Your task to perform on an android device: make emails show in primary in the gmail app Image 0: 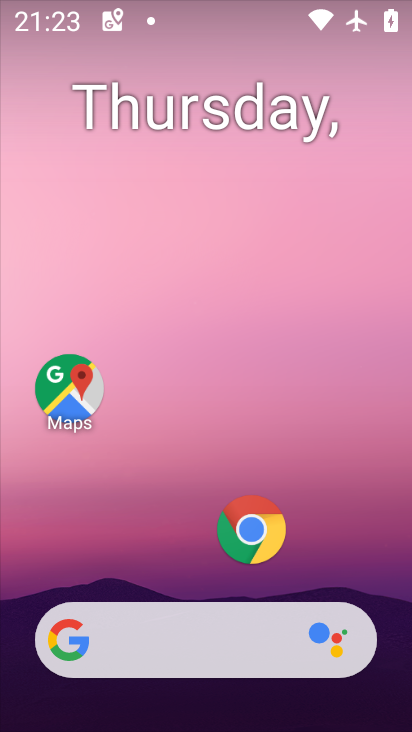
Step 0: press home button
Your task to perform on an android device: make emails show in primary in the gmail app Image 1: 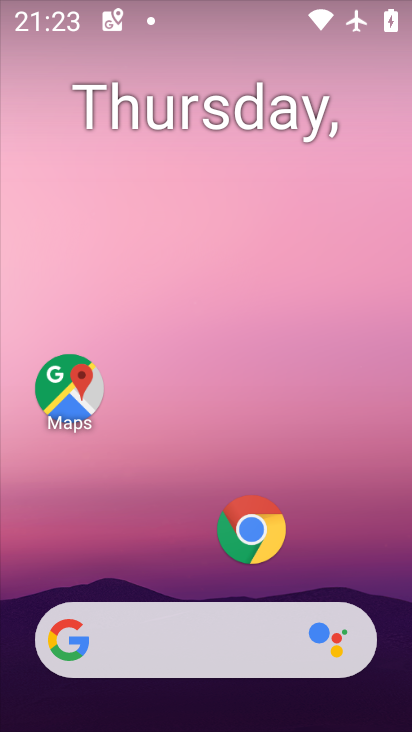
Step 1: press home button
Your task to perform on an android device: make emails show in primary in the gmail app Image 2: 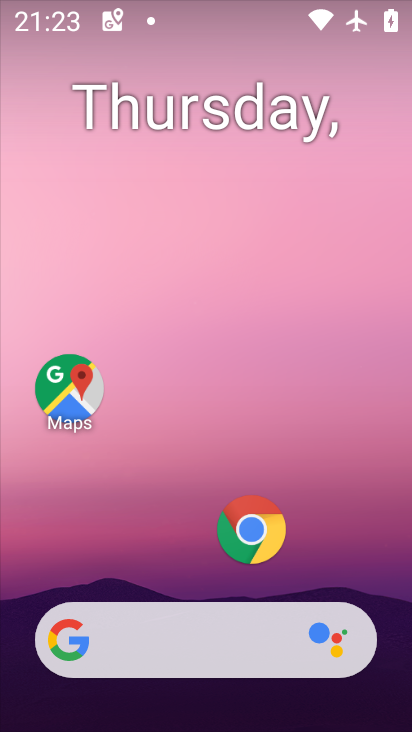
Step 2: drag from (200, 583) to (188, 100)
Your task to perform on an android device: make emails show in primary in the gmail app Image 3: 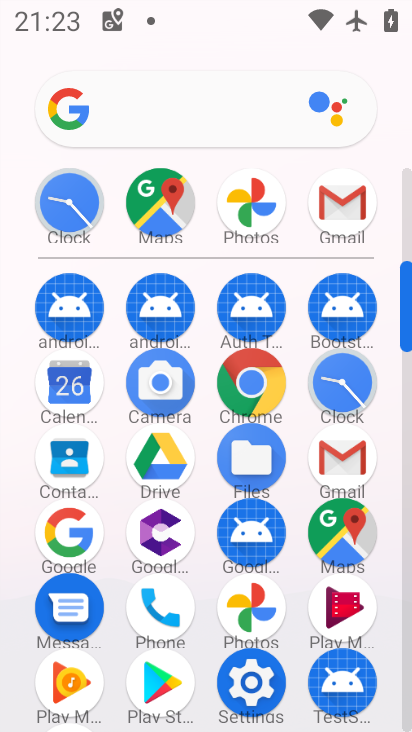
Step 3: click (341, 190)
Your task to perform on an android device: make emails show in primary in the gmail app Image 4: 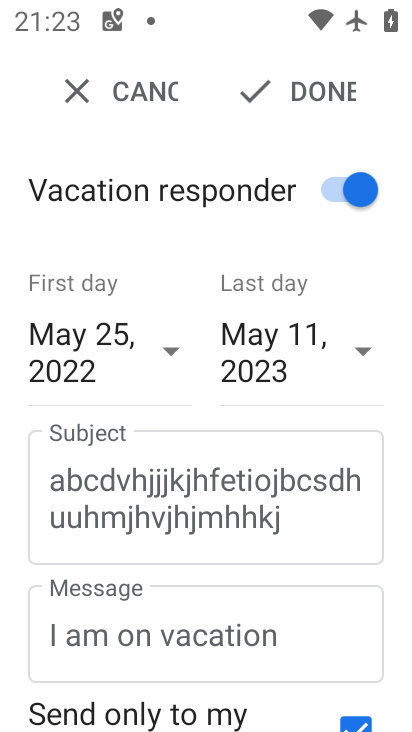
Step 4: click (73, 89)
Your task to perform on an android device: make emails show in primary in the gmail app Image 5: 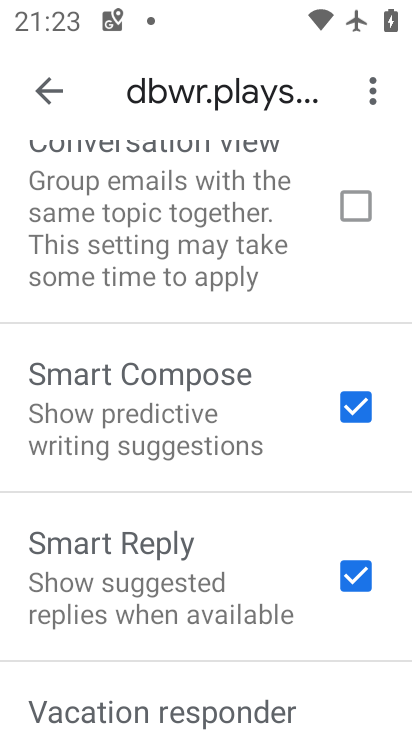
Step 5: click (51, 94)
Your task to perform on an android device: make emails show in primary in the gmail app Image 6: 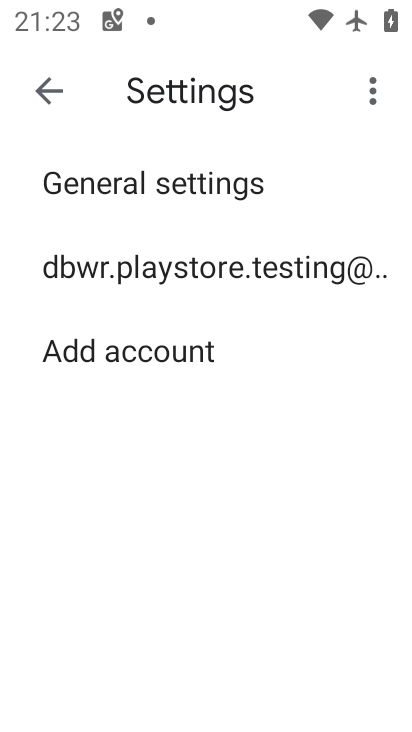
Step 6: click (229, 274)
Your task to perform on an android device: make emails show in primary in the gmail app Image 7: 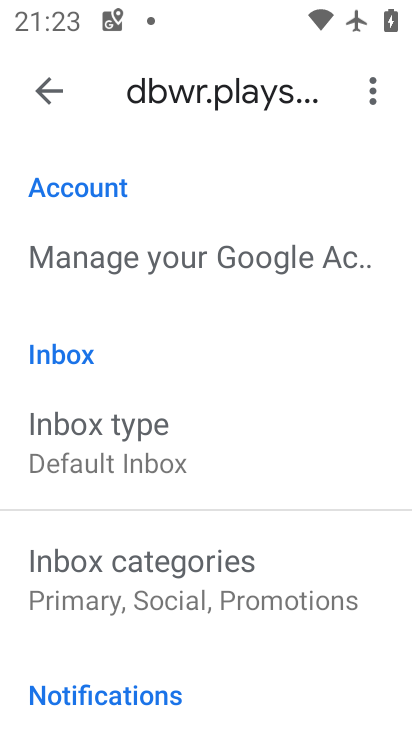
Step 7: click (193, 445)
Your task to perform on an android device: make emails show in primary in the gmail app Image 8: 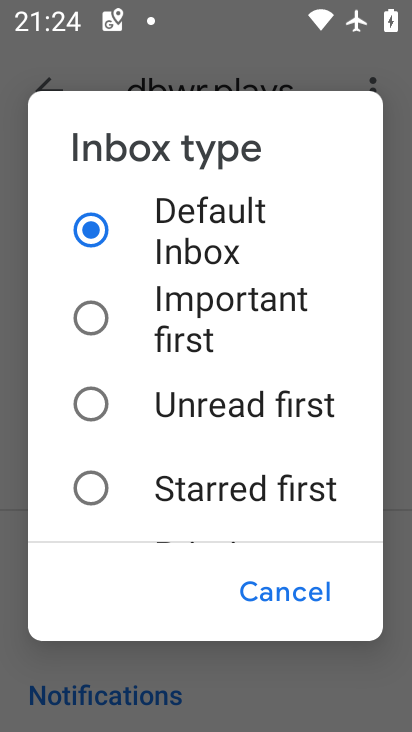
Step 8: click (90, 232)
Your task to perform on an android device: make emails show in primary in the gmail app Image 9: 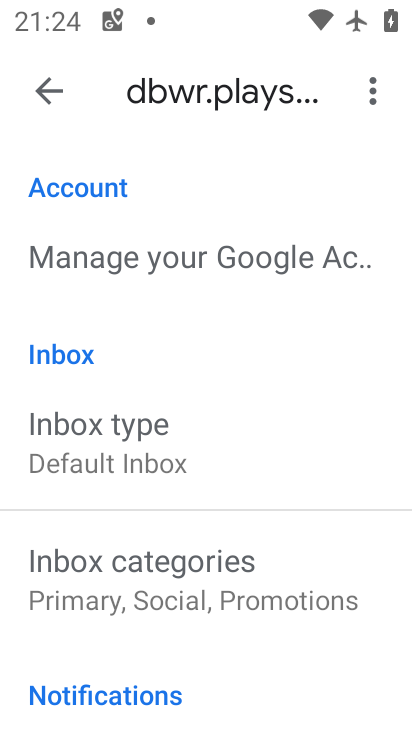
Step 9: task complete